Your task to perform on an android device: turn off notifications settings in the gmail app Image 0: 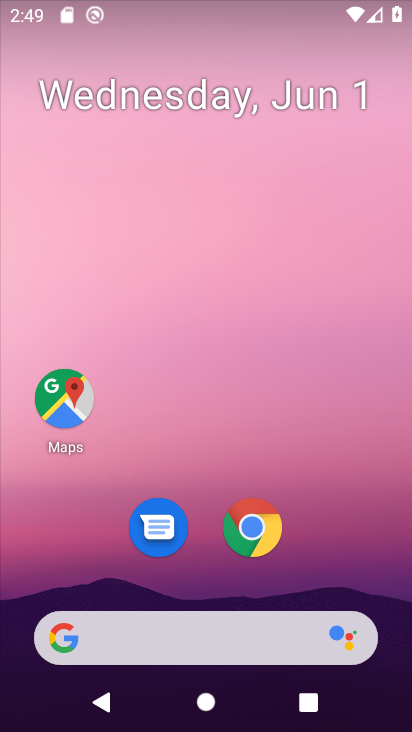
Step 0: drag from (212, 567) to (242, 131)
Your task to perform on an android device: turn off notifications settings in the gmail app Image 1: 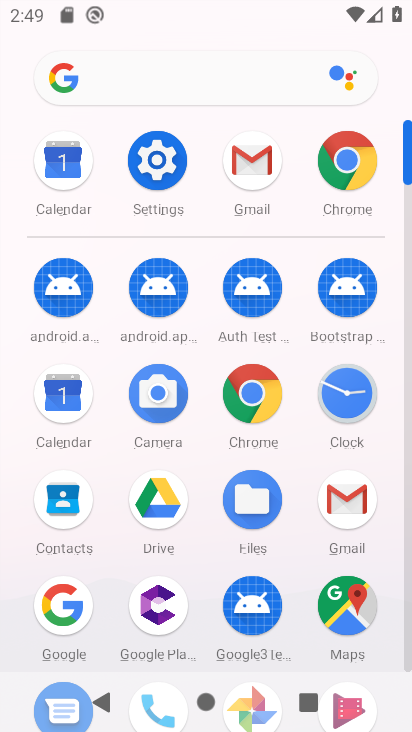
Step 1: click (351, 515)
Your task to perform on an android device: turn off notifications settings in the gmail app Image 2: 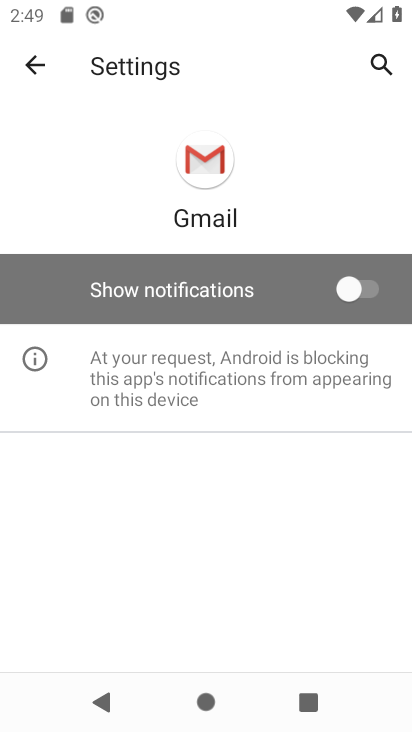
Step 2: task complete